Your task to perform on an android device: Go to settings Image 0: 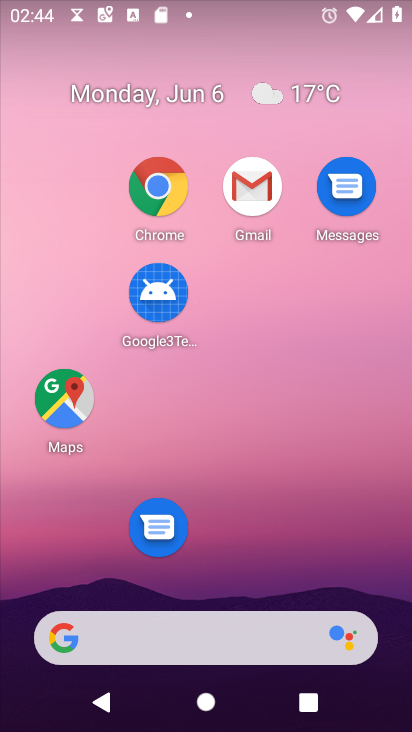
Step 0: drag from (272, 509) to (291, 98)
Your task to perform on an android device: Go to settings Image 1: 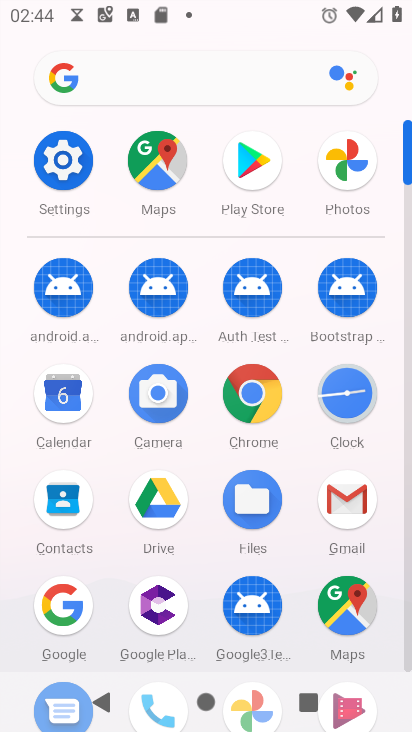
Step 1: click (50, 155)
Your task to perform on an android device: Go to settings Image 2: 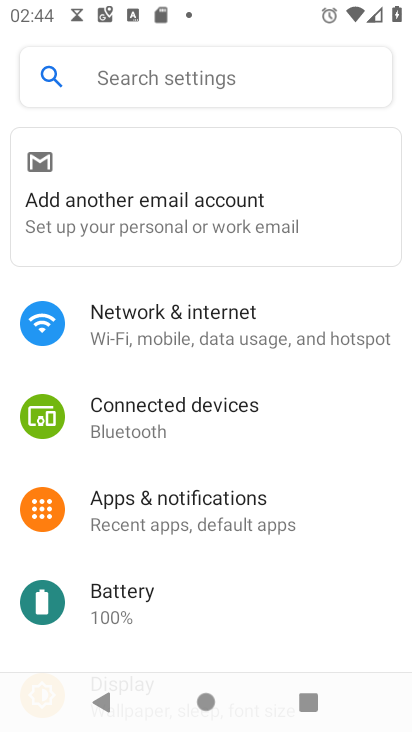
Step 2: click (127, 288)
Your task to perform on an android device: Go to settings Image 3: 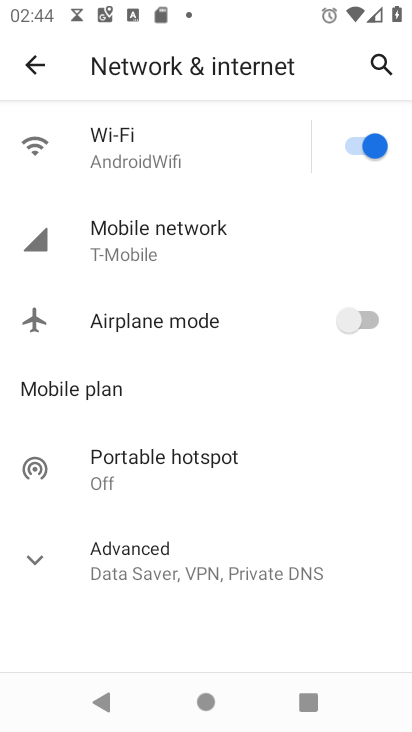
Step 3: click (39, 72)
Your task to perform on an android device: Go to settings Image 4: 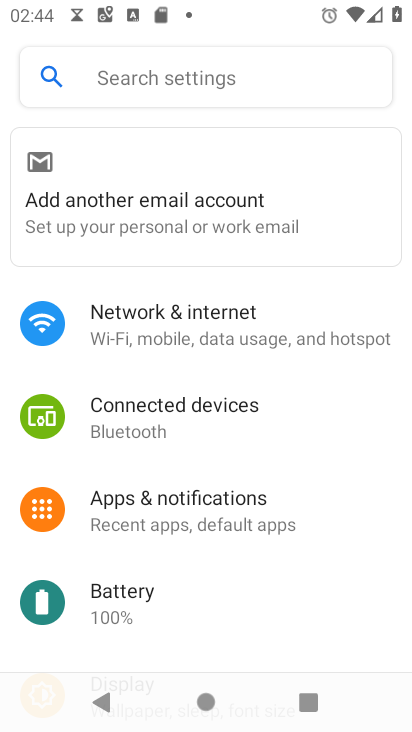
Step 4: task complete